Your task to perform on an android device: Open Google Image 0: 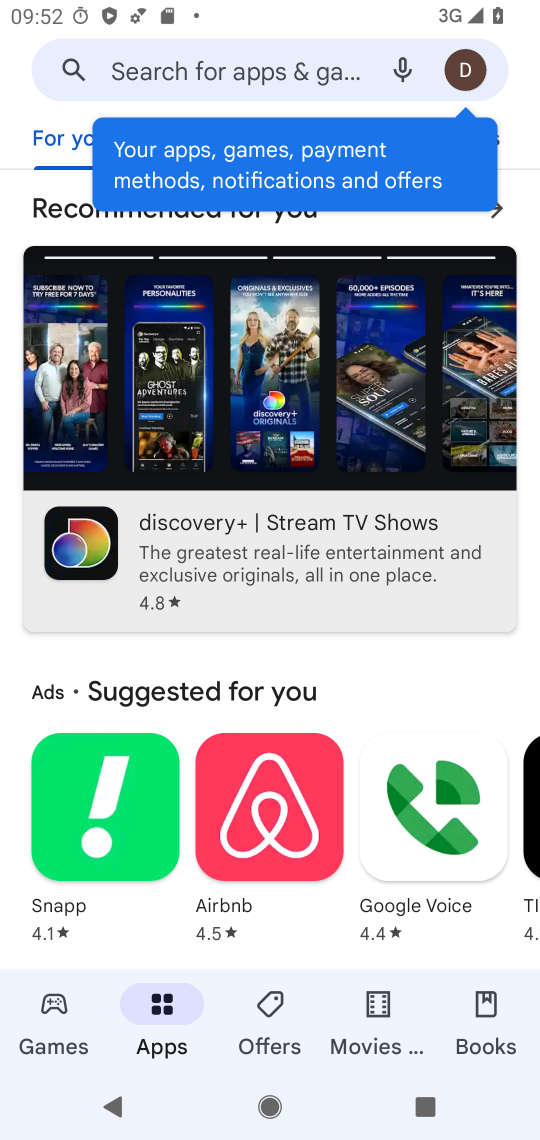
Step 0: press home button
Your task to perform on an android device: Open Google Image 1: 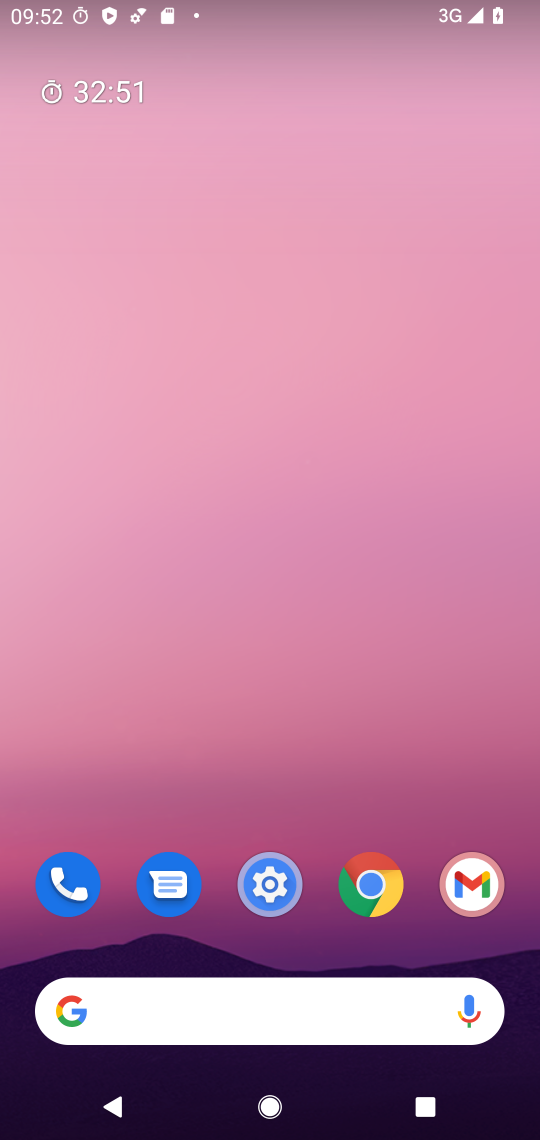
Step 1: drag from (275, 751) to (254, 147)
Your task to perform on an android device: Open Google Image 2: 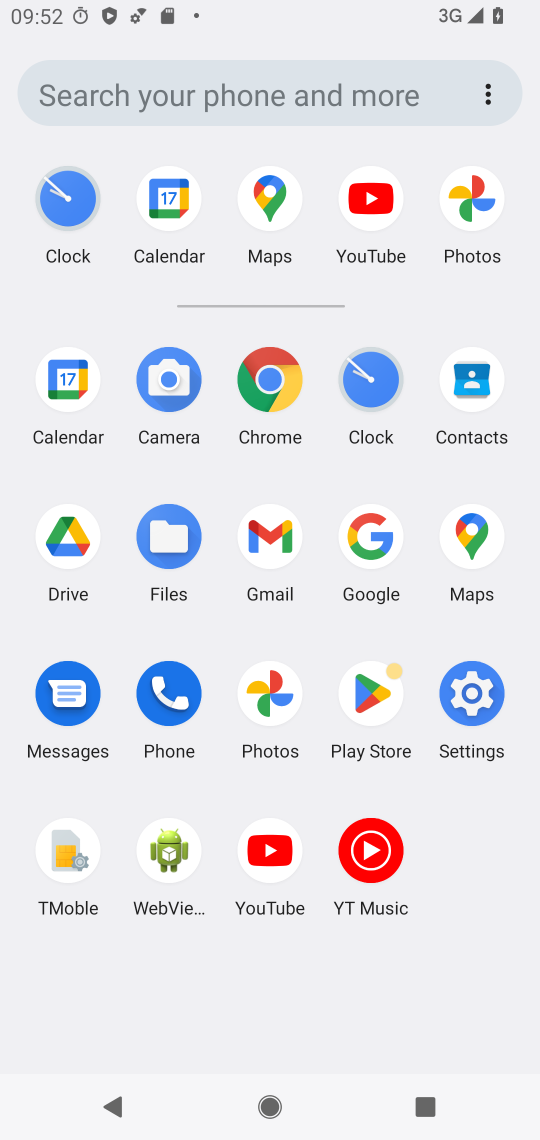
Step 2: click (349, 552)
Your task to perform on an android device: Open Google Image 3: 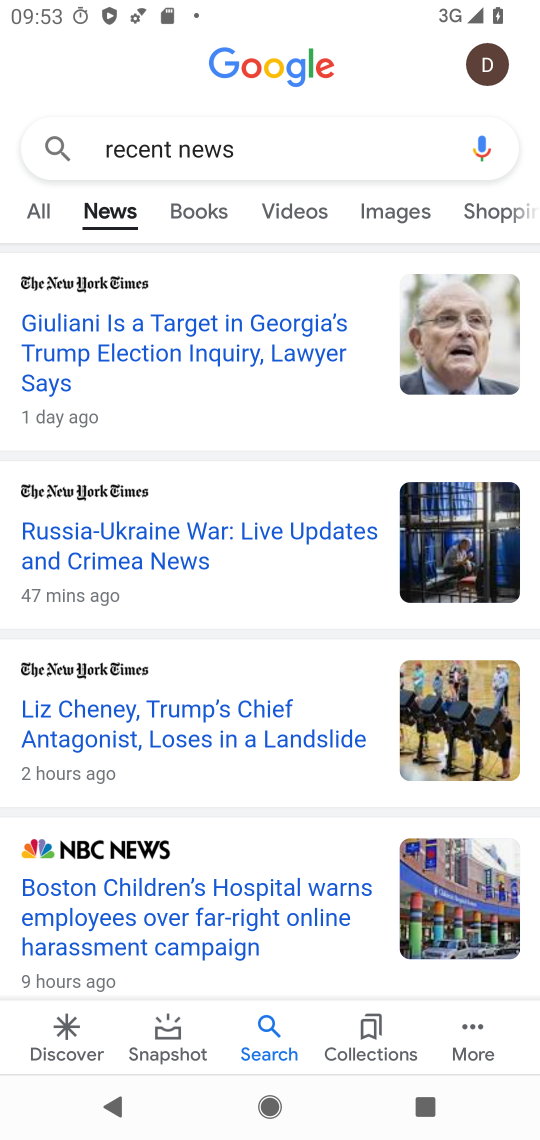
Step 3: task complete